Your task to perform on an android device: see tabs open on other devices in the chrome app Image 0: 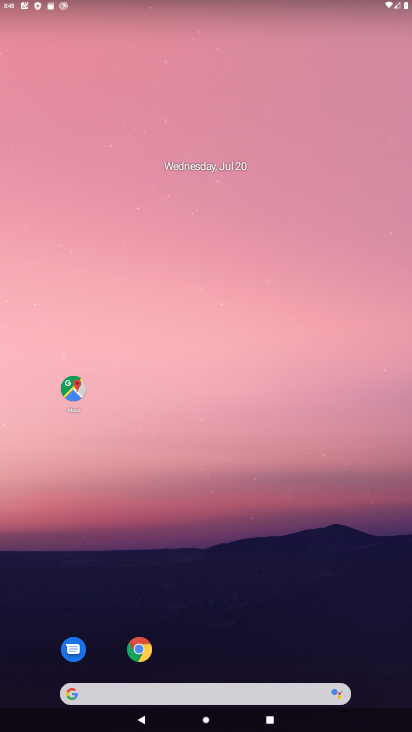
Step 0: click (138, 658)
Your task to perform on an android device: see tabs open on other devices in the chrome app Image 1: 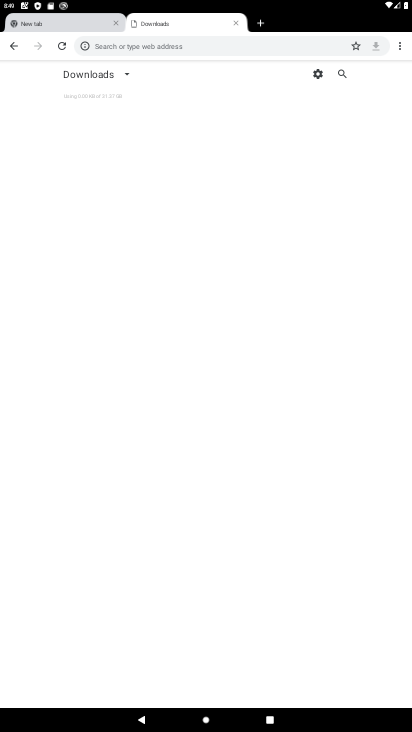
Step 1: click (401, 34)
Your task to perform on an android device: see tabs open on other devices in the chrome app Image 2: 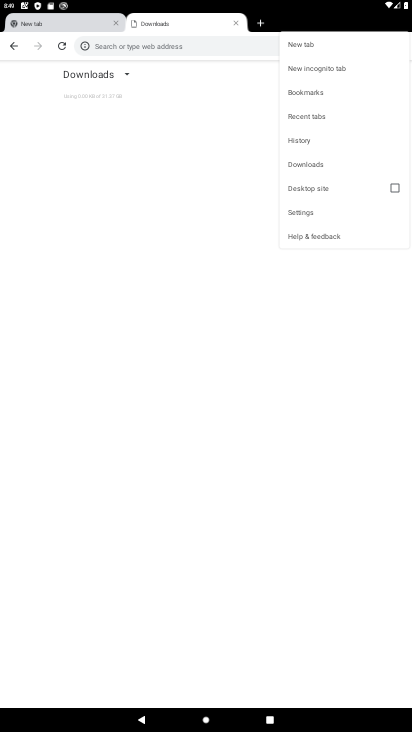
Step 2: click (323, 115)
Your task to perform on an android device: see tabs open on other devices in the chrome app Image 3: 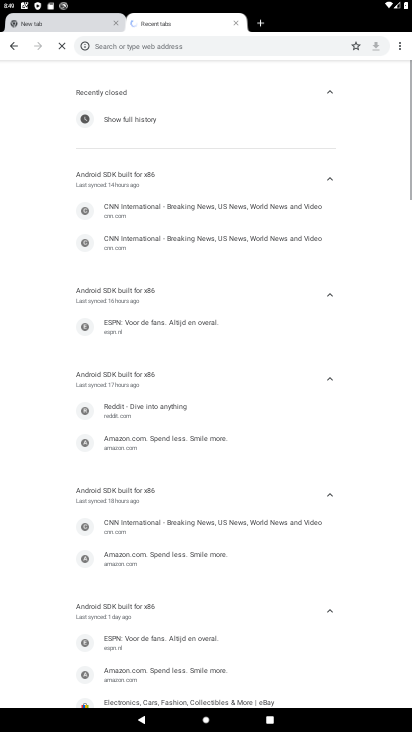
Step 3: task complete